Your task to perform on an android device: find photos in the google photos app Image 0: 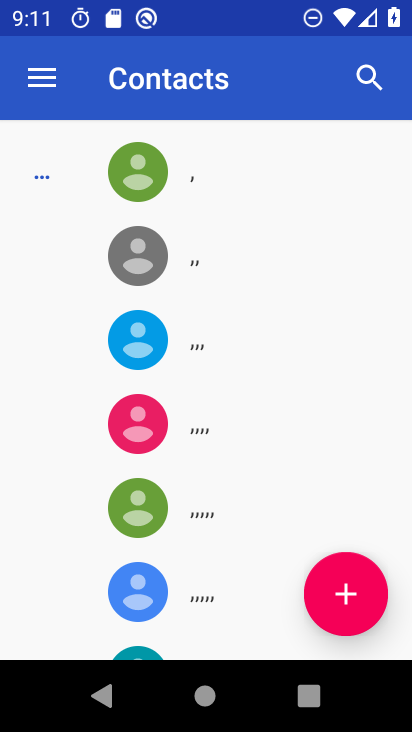
Step 0: press home button
Your task to perform on an android device: find photos in the google photos app Image 1: 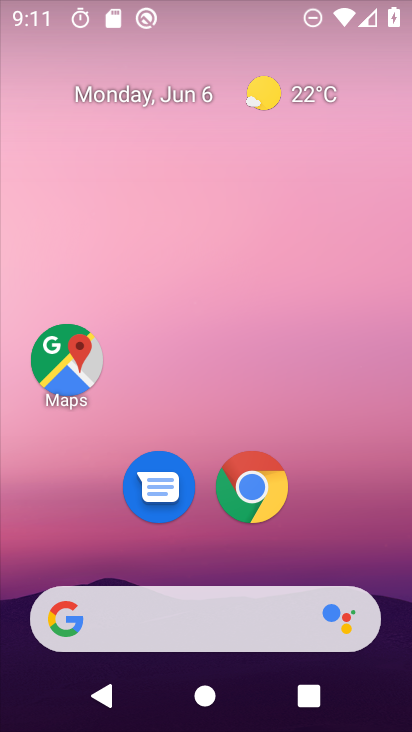
Step 1: drag from (391, 628) to (314, 59)
Your task to perform on an android device: find photos in the google photos app Image 2: 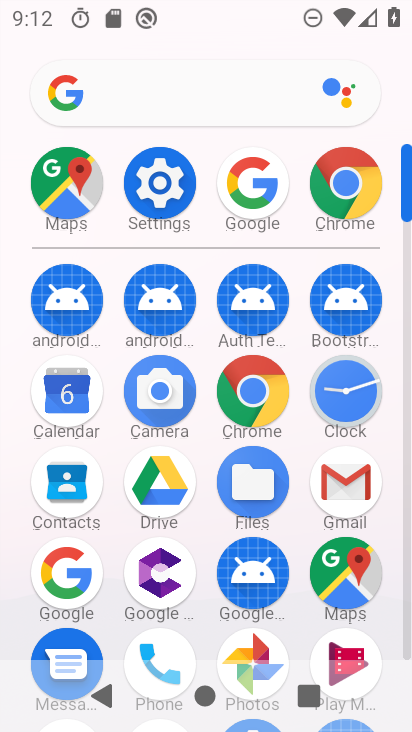
Step 2: click (247, 633)
Your task to perform on an android device: find photos in the google photos app Image 3: 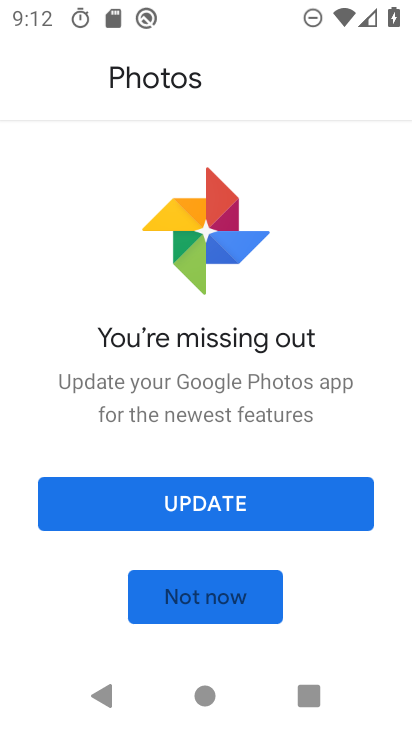
Step 3: click (223, 504)
Your task to perform on an android device: find photos in the google photos app Image 4: 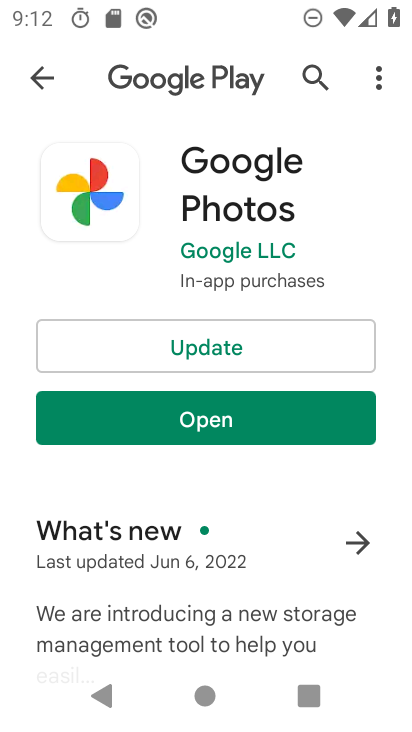
Step 4: click (240, 351)
Your task to perform on an android device: find photos in the google photos app Image 5: 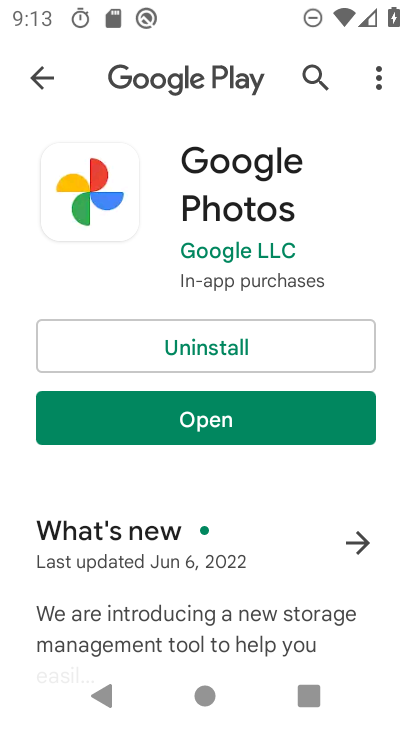
Step 5: click (160, 432)
Your task to perform on an android device: find photos in the google photos app Image 6: 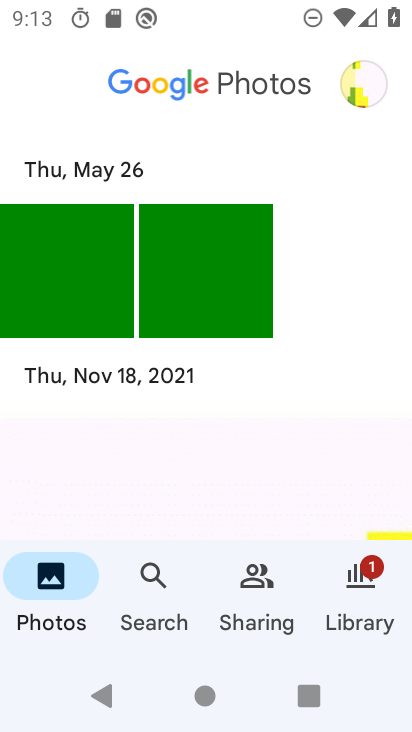
Step 6: task complete